Your task to perform on an android device: Open Chrome and go to the settings page Image 0: 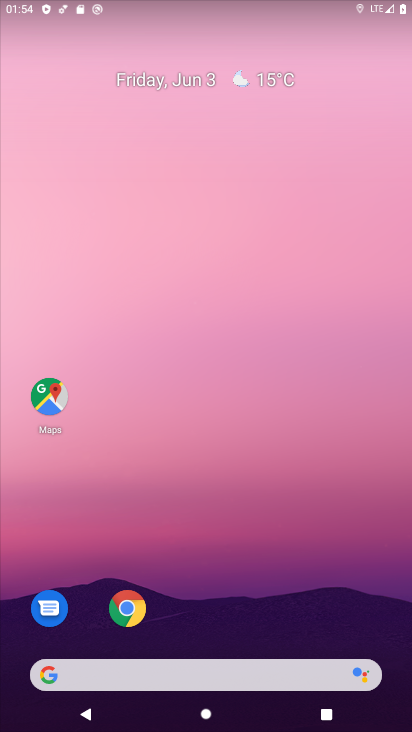
Step 0: drag from (231, 575) to (210, 115)
Your task to perform on an android device: Open Chrome and go to the settings page Image 1: 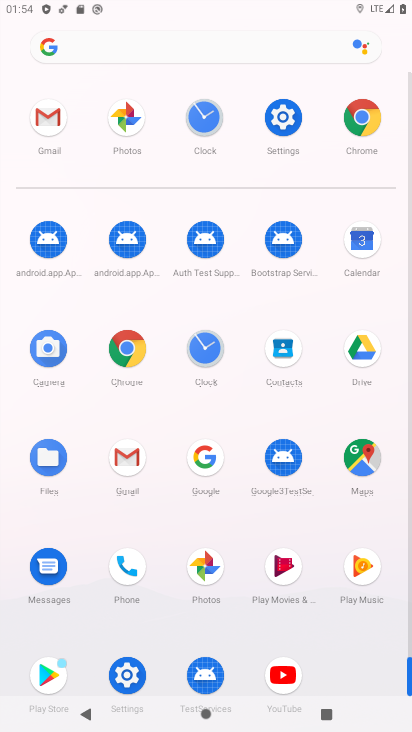
Step 1: click (370, 115)
Your task to perform on an android device: Open Chrome and go to the settings page Image 2: 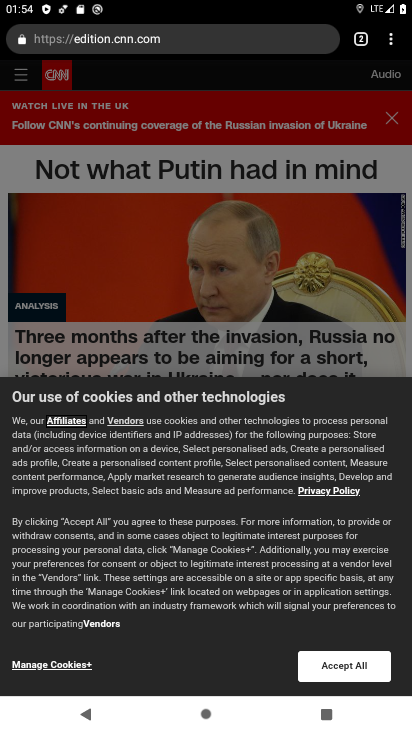
Step 2: task complete